Your task to perform on an android device: What's the weather today? Image 0: 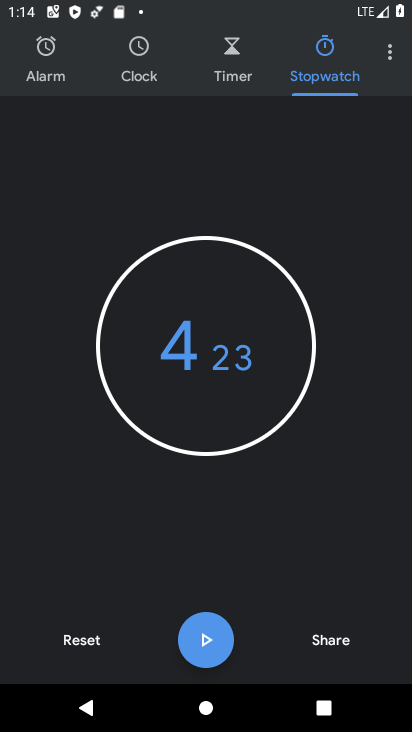
Step 0: press home button
Your task to perform on an android device: What's the weather today? Image 1: 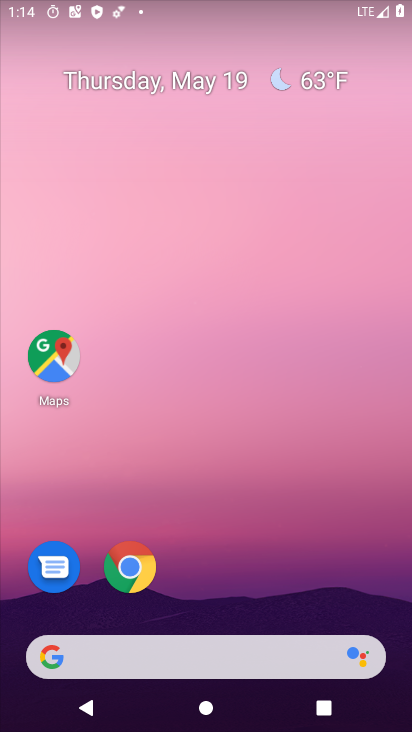
Step 1: click (335, 77)
Your task to perform on an android device: What's the weather today? Image 2: 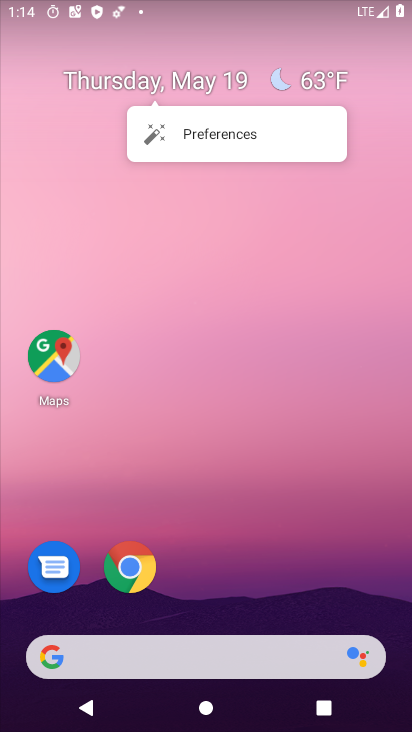
Step 2: click (325, 84)
Your task to perform on an android device: What's the weather today? Image 3: 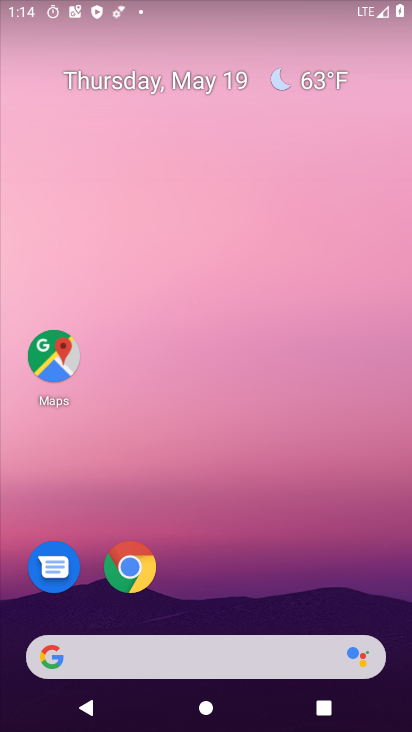
Step 3: click (313, 91)
Your task to perform on an android device: What's the weather today? Image 4: 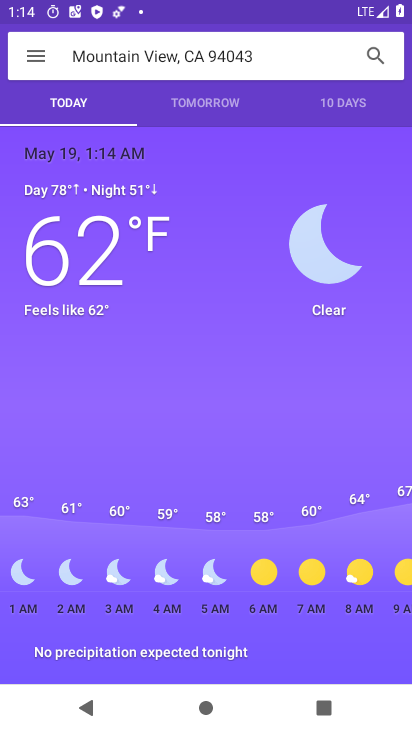
Step 4: task complete